Your task to perform on an android device: Go to Amazon Image 0: 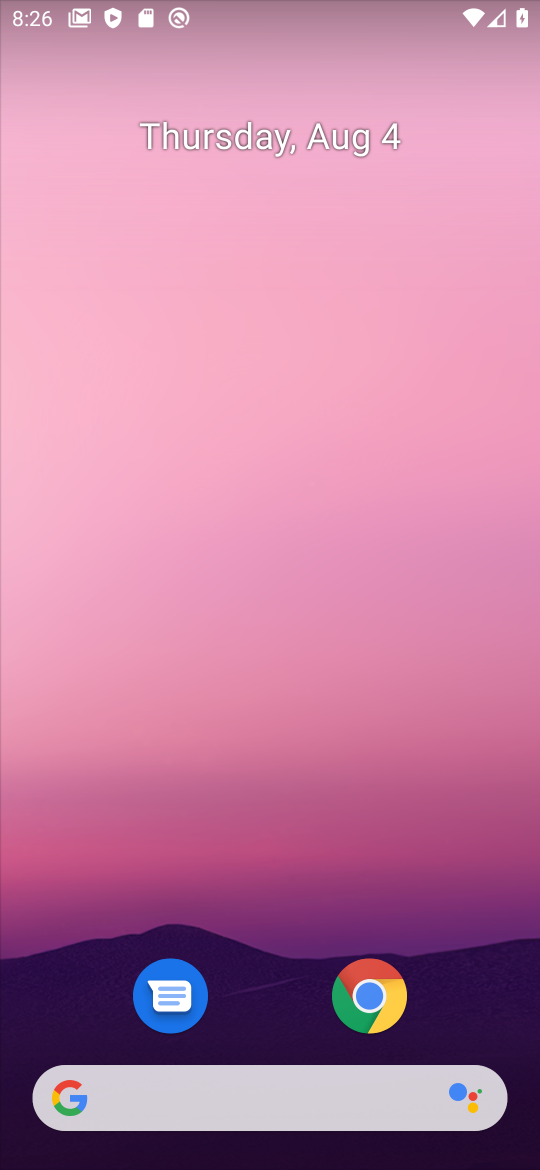
Step 0: click (366, 1002)
Your task to perform on an android device: Go to Amazon Image 1: 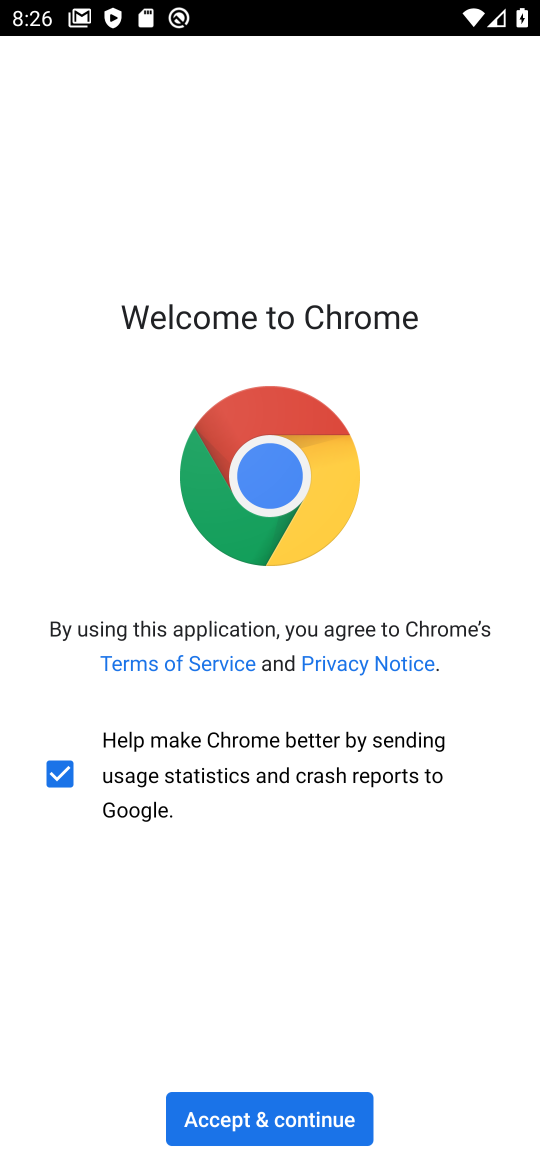
Step 1: click (310, 1128)
Your task to perform on an android device: Go to Amazon Image 2: 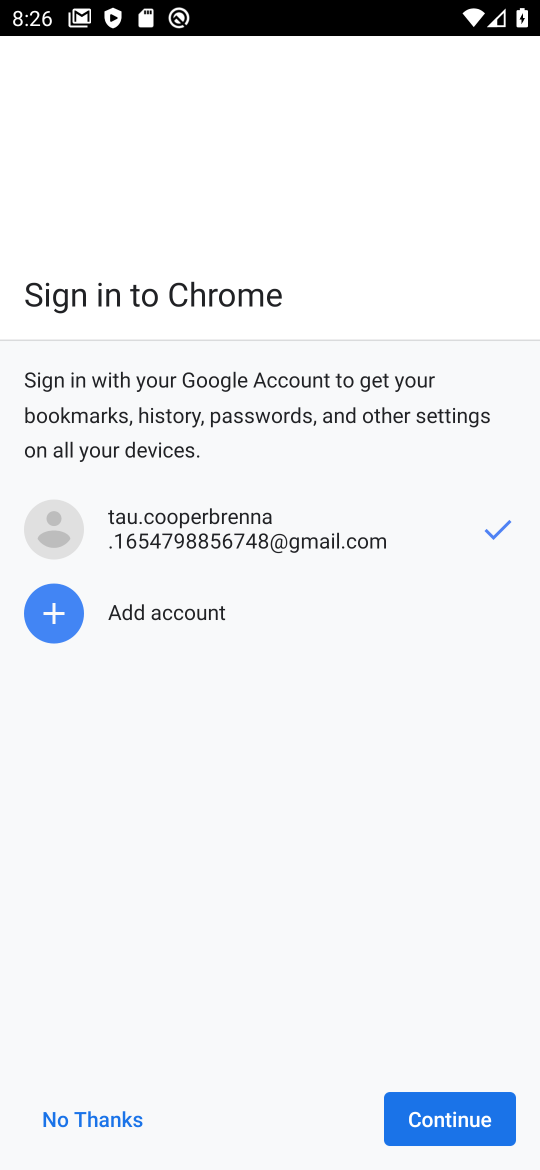
Step 2: click (495, 1129)
Your task to perform on an android device: Go to Amazon Image 3: 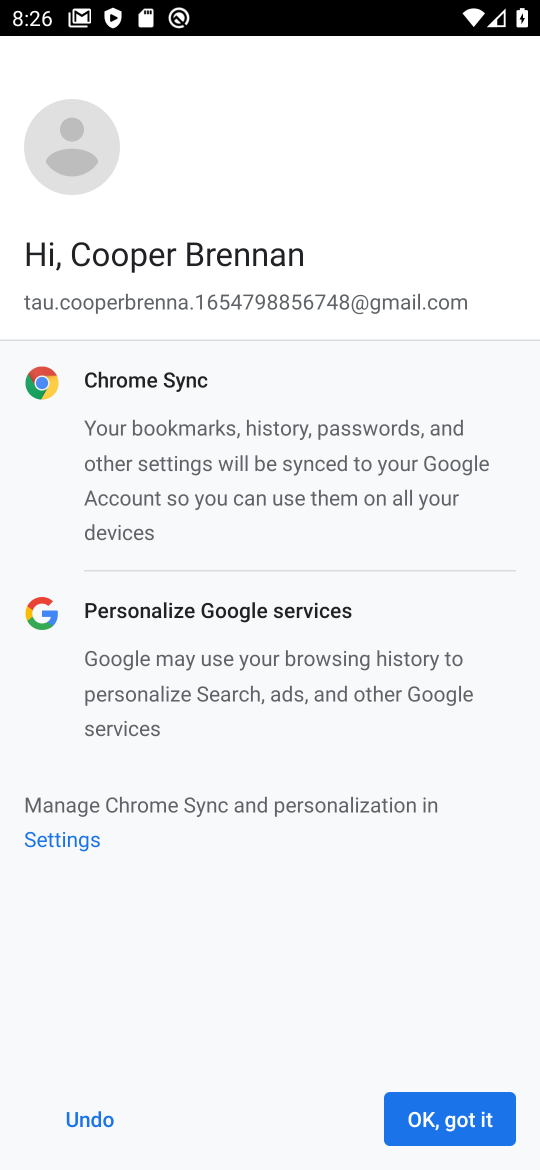
Step 3: click (463, 1118)
Your task to perform on an android device: Go to Amazon Image 4: 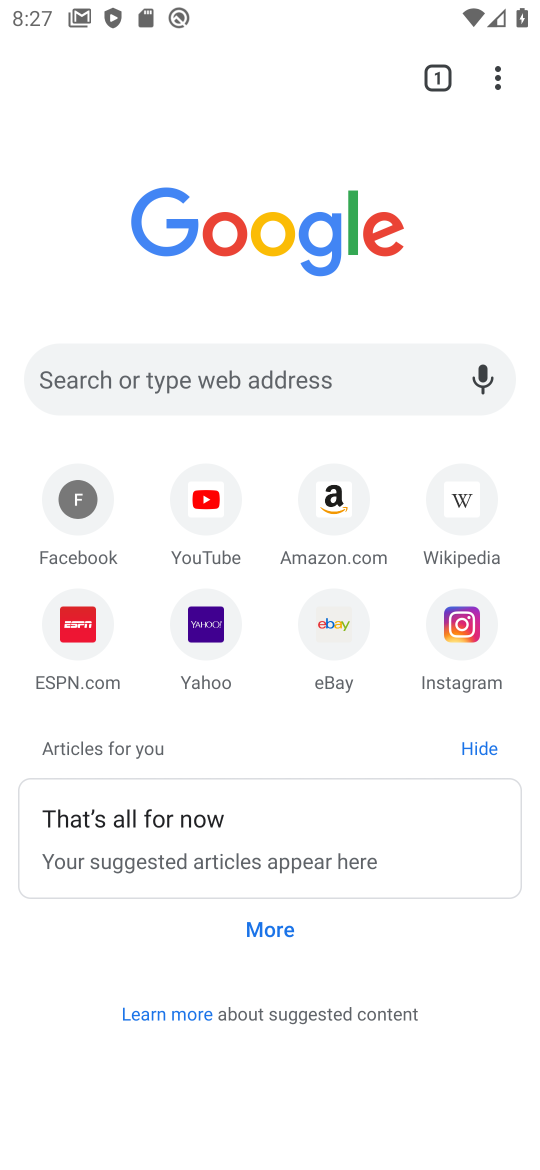
Step 4: click (360, 507)
Your task to perform on an android device: Go to Amazon Image 5: 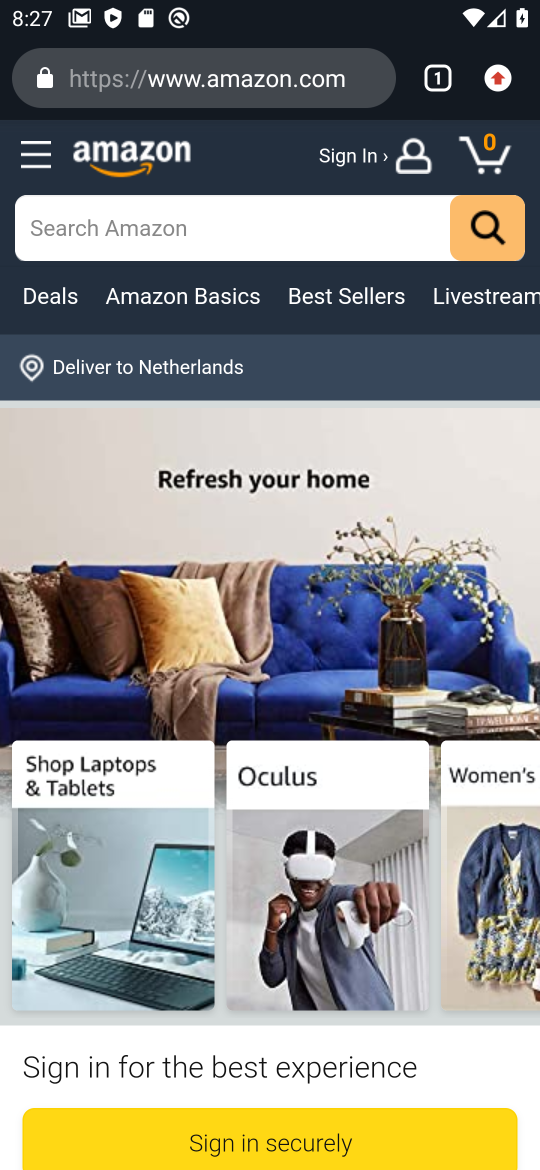
Step 5: task complete